Your task to perform on an android device: open device folders in google photos Image 0: 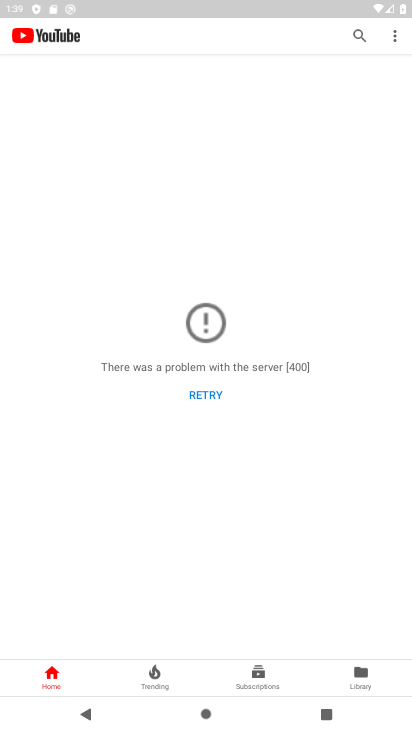
Step 0: press home button
Your task to perform on an android device: open device folders in google photos Image 1: 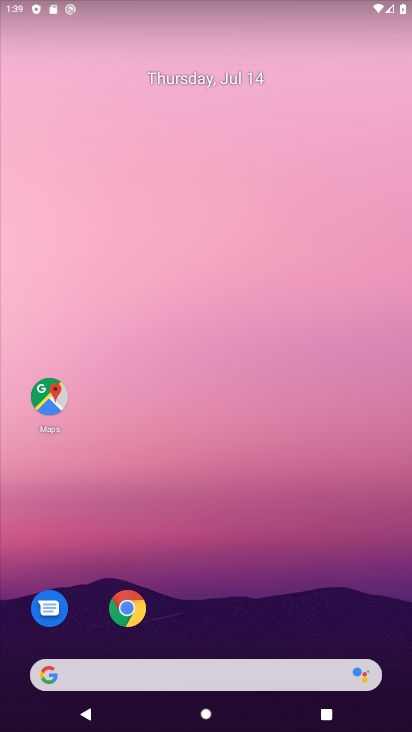
Step 1: drag from (201, 670) to (265, 226)
Your task to perform on an android device: open device folders in google photos Image 2: 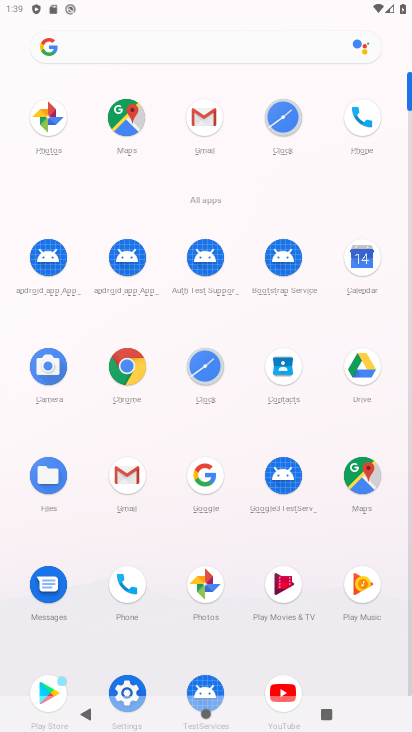
Step 2: click (207, 586)
Your task to perform on an android device: open device folders in google photos Image 3: 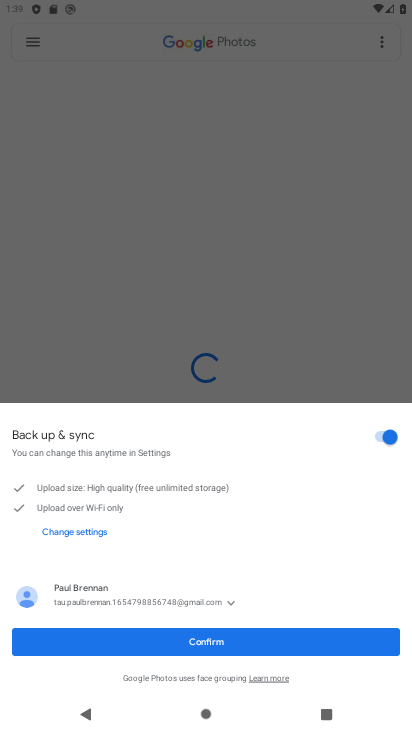
Step 3: click (191, 641)
Your task to perform on an android device: open device folders in google photos Image 4: 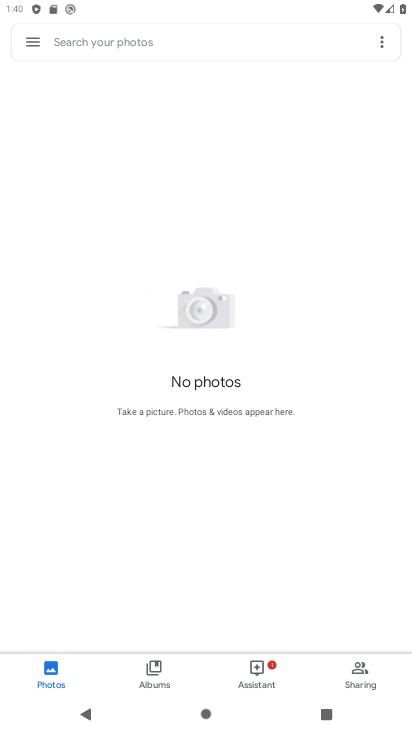
Step 4: click (30, 41)
Your task to perform on an android device: open device folders in google photos Image 5: 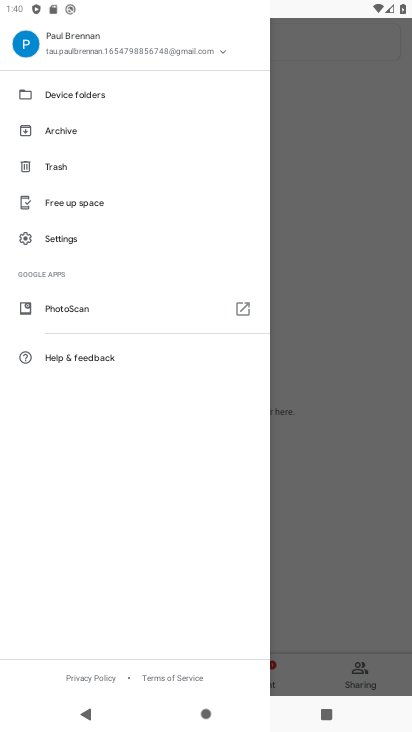
Step 5: click (82, 98)
Your task to perform on an android device: open device folders in google photos Image 6: 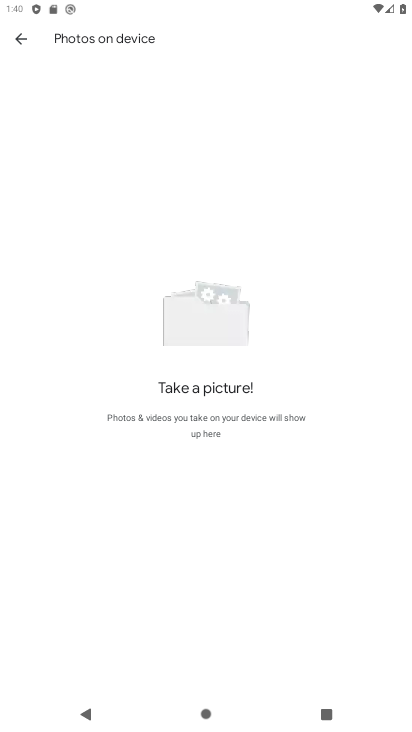
Step 6: task complete